Your task to perform on an android device: turn pop-ups off in chrome Image 0: 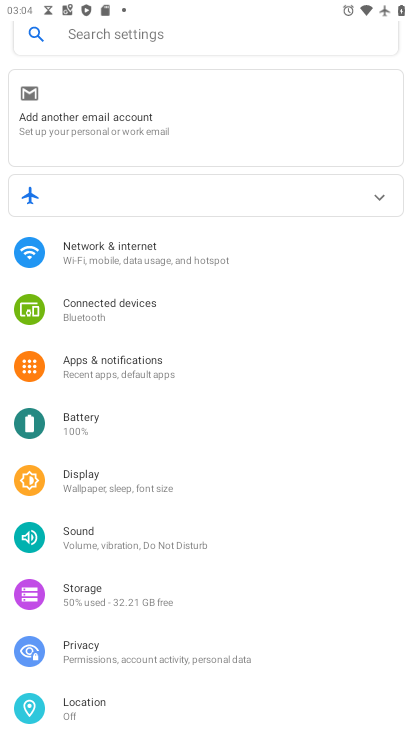
Step 0: press home button
Your task to perform on an android device: turn pop-ups off in chrome Image 1: 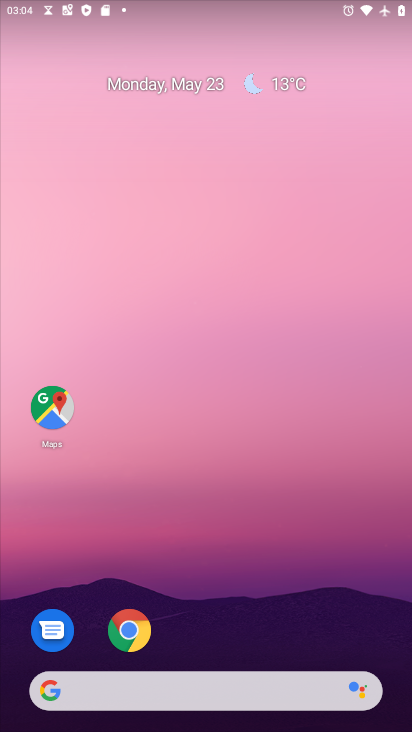
Step 1: click (143, 624)
Your task to perform on an android device: turn pop-ups off in chrome Image 2: 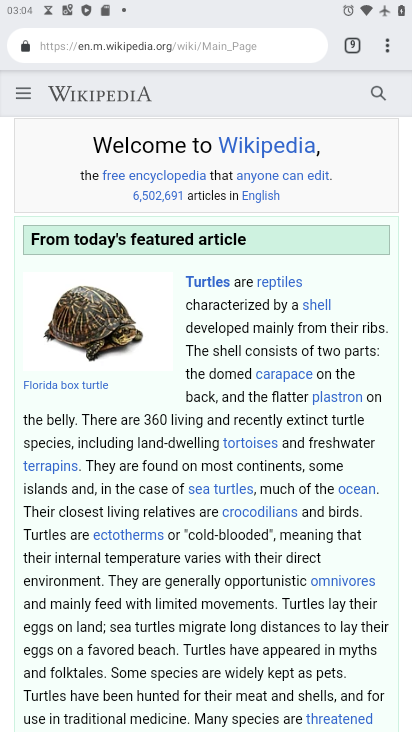
Step 2: click (382, 42)
Your task to perform on an android device: turn pop-ups off in chrome Image 3: 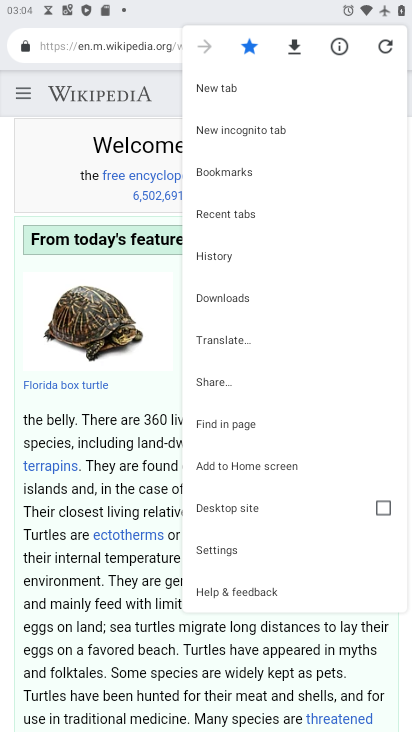
Step 3: click (276, 532)
Your task to perform on an android device: turn pop-ups off in chrome Image 4: 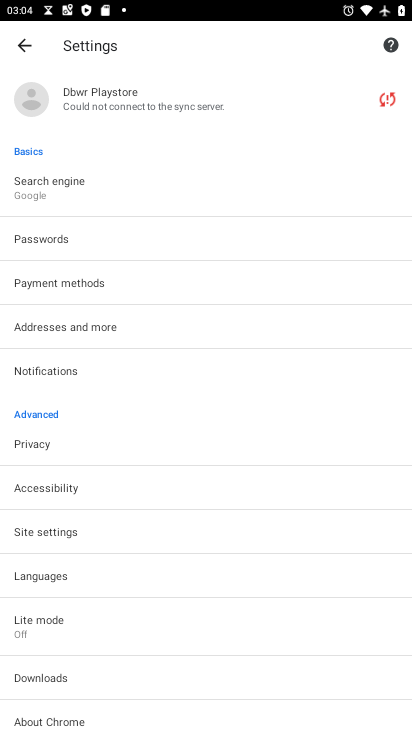
Step 4: click (142, 534)
Your task to perform on an android device: turn pop-ups off in chrome Image 5: 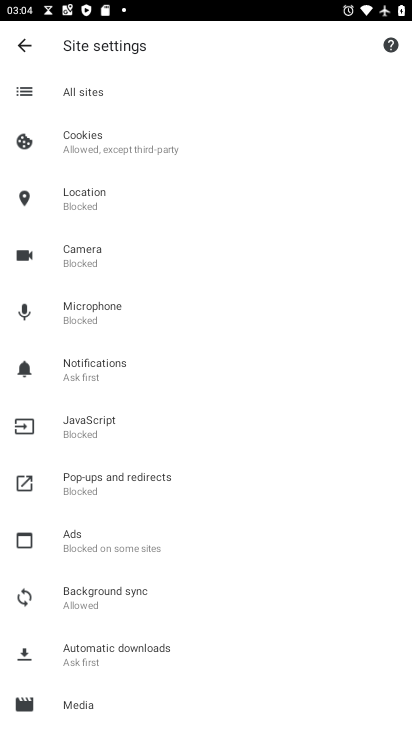
Step 5: click (172, 483)
Your task to perform on an android device: turn pop-ups off in chrome Image 6: 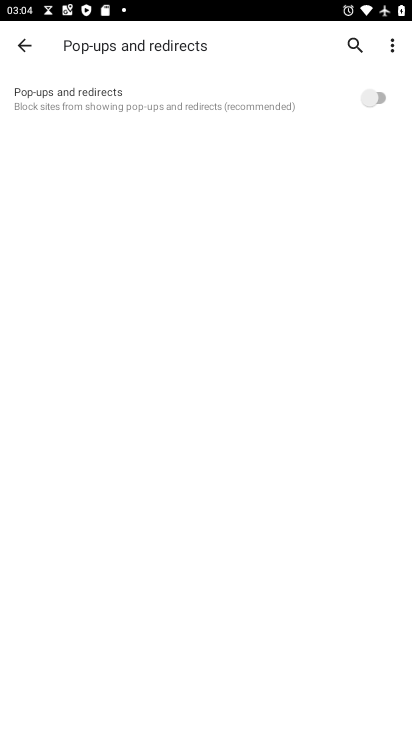
Step 6: task complete